Your task to perform on an android device: see sites visited before in the chrome app Image 0: 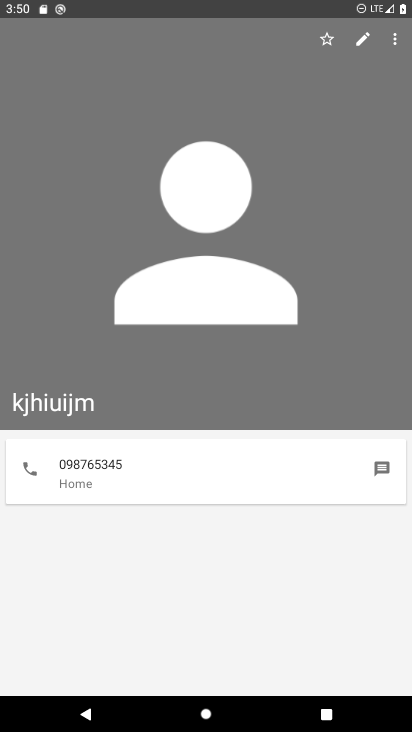
Step 0: press home button
Your task to perform on an android device: see sites visited before in the chrome app Image 1: 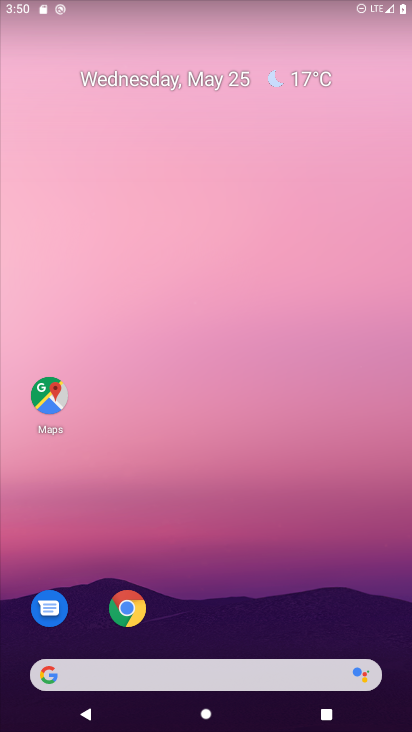
Step 1: click (130, 604)
Your task to perform on an android device: see sites visited before in the chrome app Image 2: 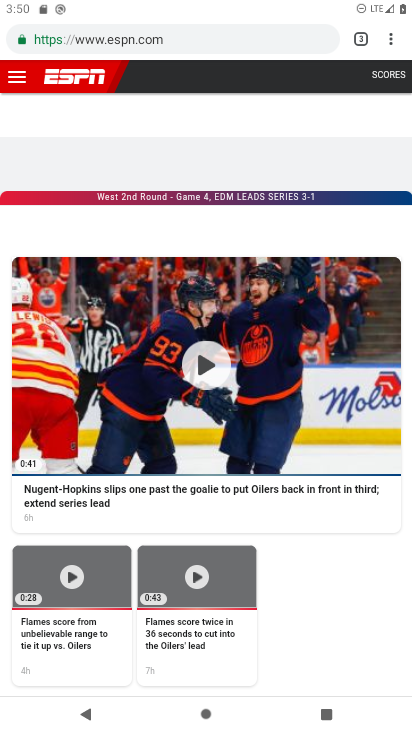
Step 2: click (389, 41)
Your task to perform on an android device: see sites visited before in the chrome app Image 3: 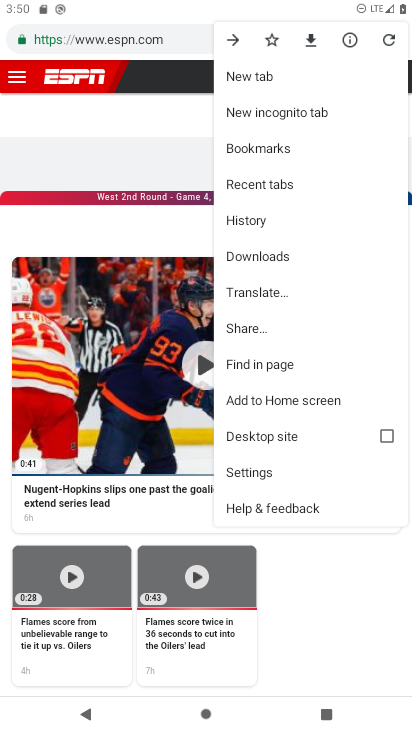
Step 3: click (249, 218)
Your task to perform on an android device: see sites visited before in the chrome app Image 4: 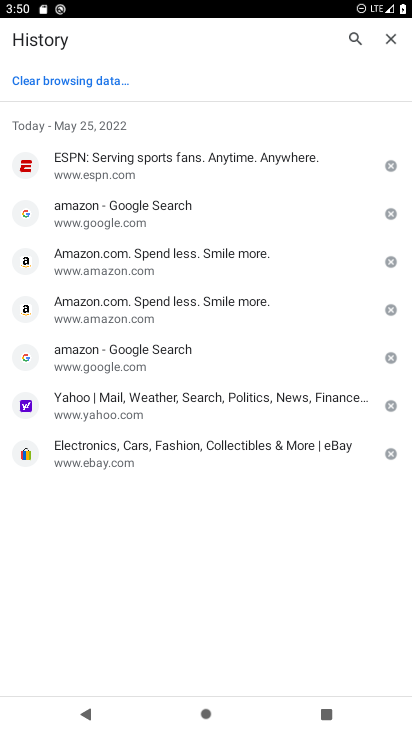
Step 4: task complete